Your task to perform on an android device: toggle location history Image 0: 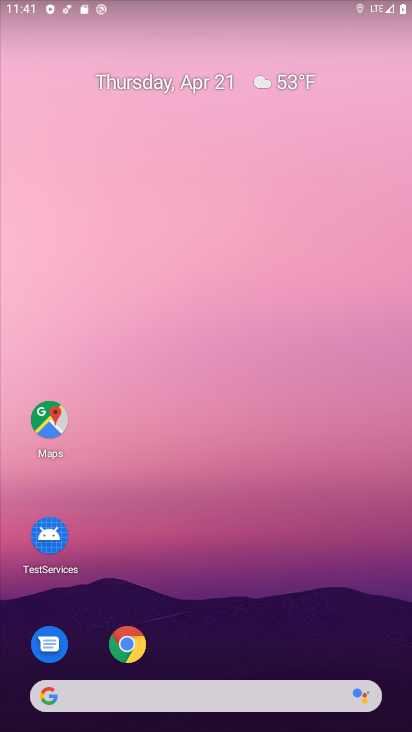
Step 0: drag from (277, 426) to (239, 42)
Your task to perform on an android device: toggle location history Image 1: 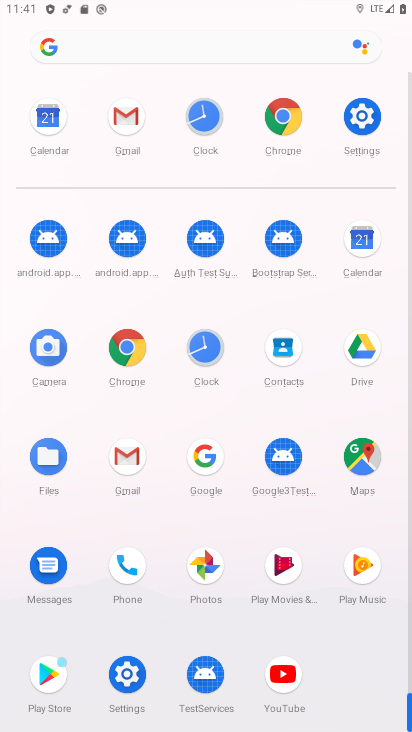
Step 1: click (126, 674)
Your task to perform on an android device: toggle location history Image 2: 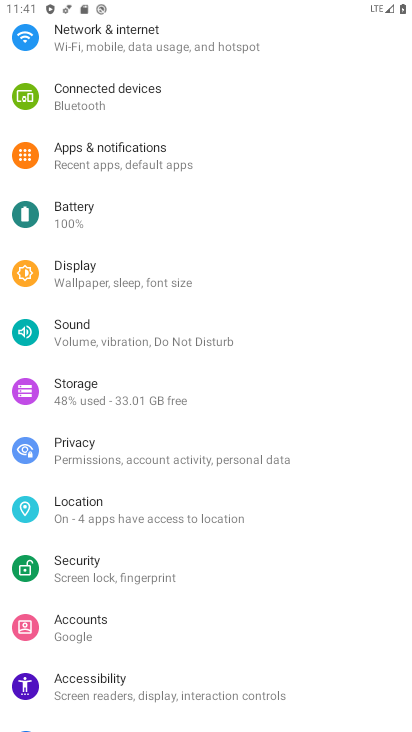
Step 2: drag from (173, 611) to (226, 640)
Your task to perform on an android device: toggle location history Image 3: 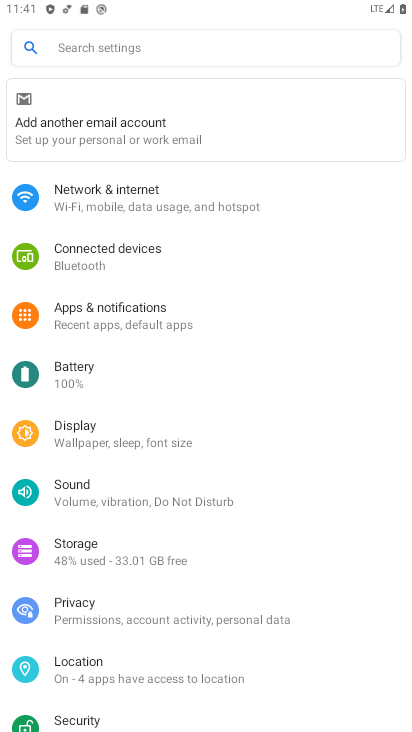
Step 3: drag from (213, 569) to (248, 293)
Your task to perform on an android device: toggle location history Image 4: 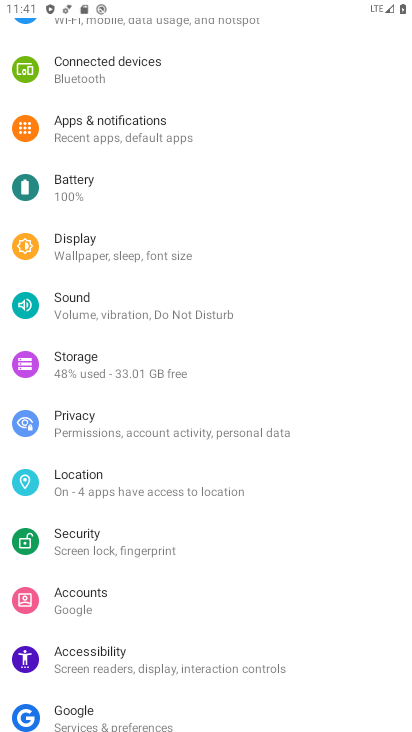
Step 4: click (109, 484)
Your task to perform on an android device: toggle location history Image 5: 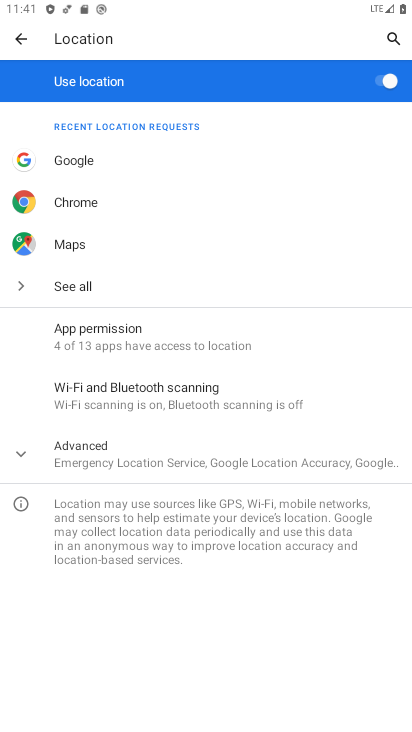
Step 5: click (129, 334)
Your task to perform on an android device: toggle location history Image 6: 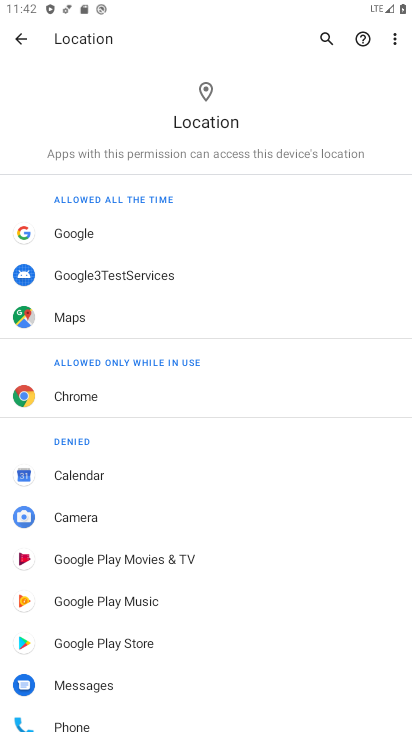
Step 6: drag from (169, 596) to (200, 553)
Your task to perform on an android device: toggle location history Image 7: 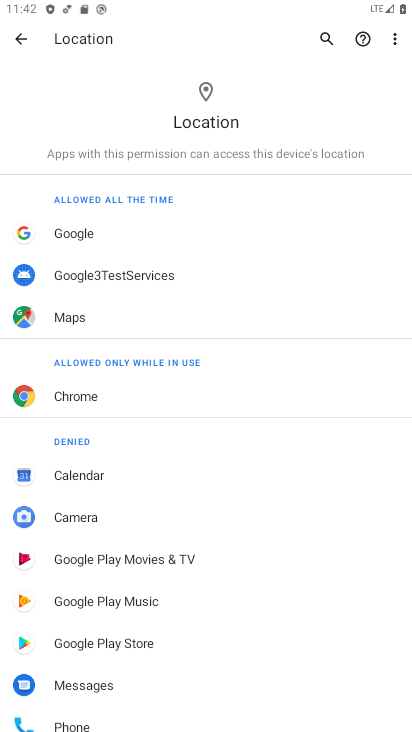
Step 7: click (27, 34)
Your task to perform on an android device: toggle location history Image 8: 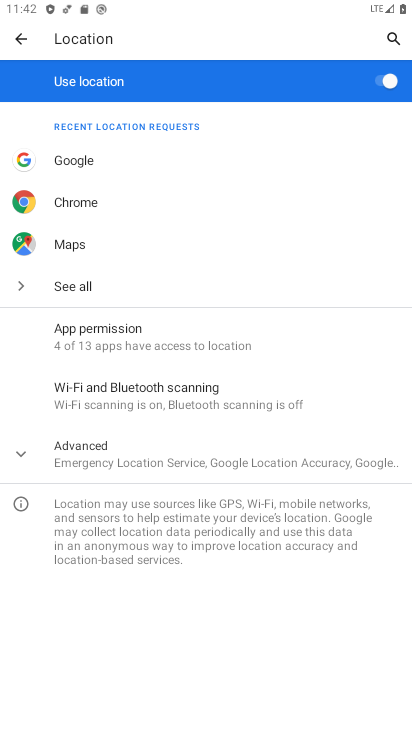
Step 8: click (163, 465)
Your task to perform on an android device: toggle location history Image 9: 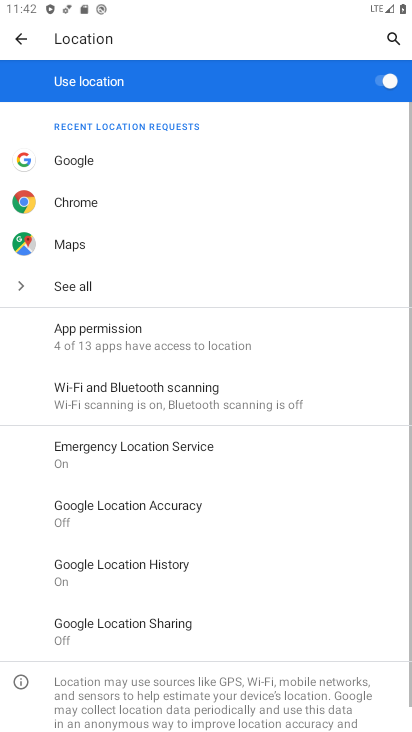
Step 9: drag from (269, 643) to (301, 445)
Your task to perform on an android device: toggle location history Image 10: 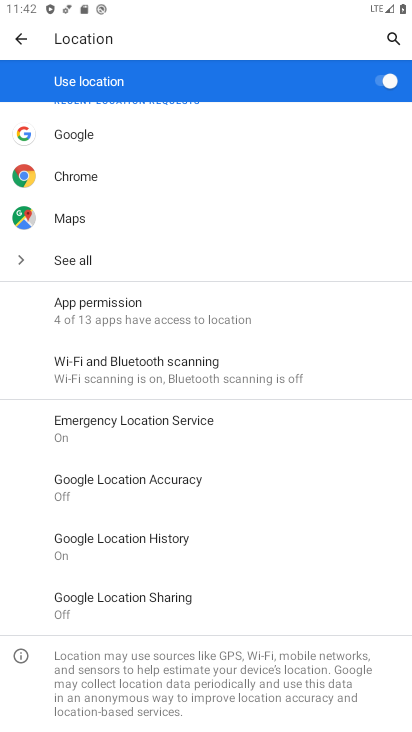
Step 10: click (179, 538)
Your task to perform on an android device: toggle location history Image 11: 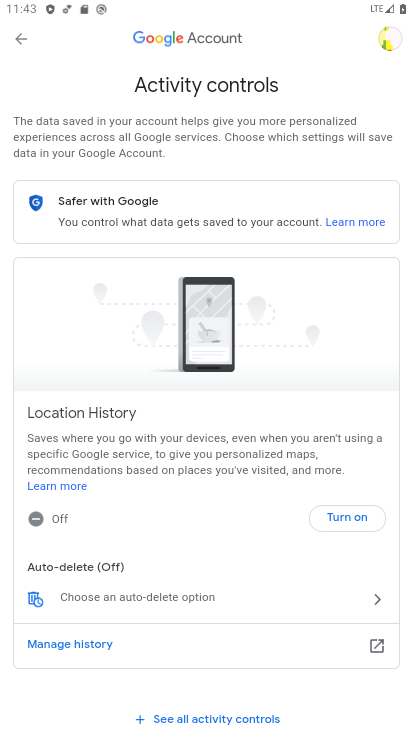
Step 11: click (353, 516)
Your task to perform on an android device: toggle location history Image 12: 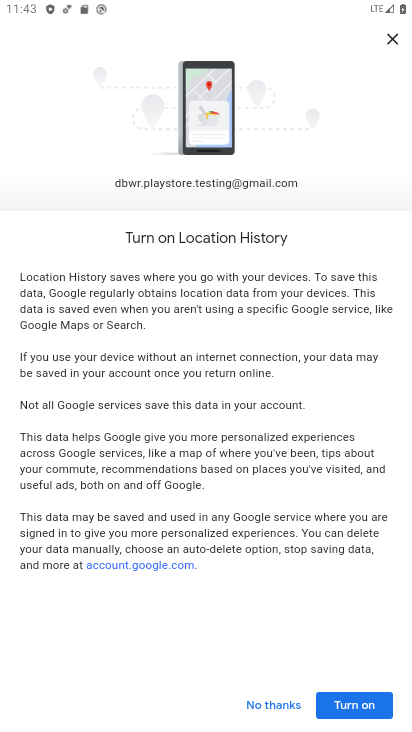
Step 12: click (339, 705)
Your task to perform on an android device: toggle location history Image 13: 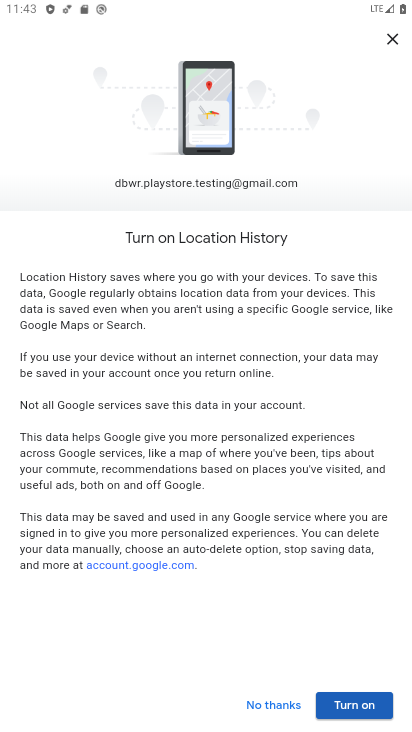
Step 13: click (359, 705)
Your task to perform on an android device: toggle location history Image 14: 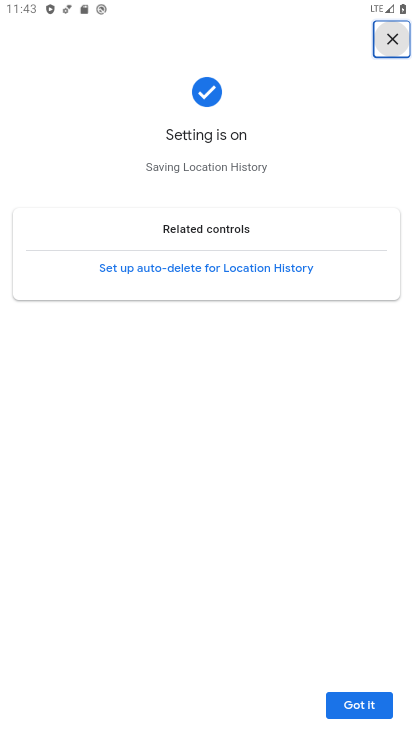
Step 14: task complete